Your task to perform on an android device: toggle pop-ups in chrome Image 0: 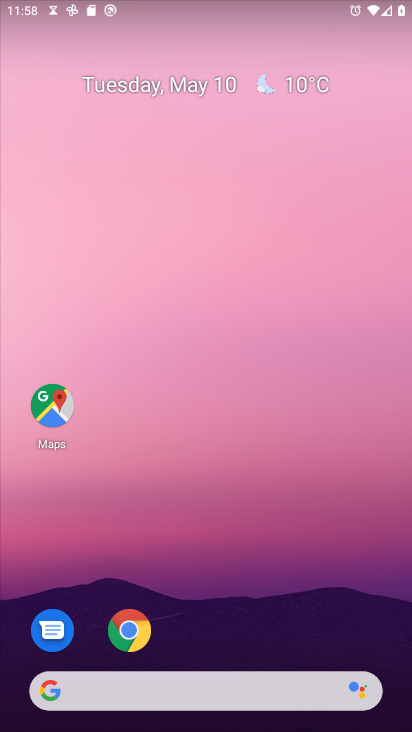
Step 0: click (131, 627)
Your task to perform on an android device: toggle pop-ups in chrome Image 1: 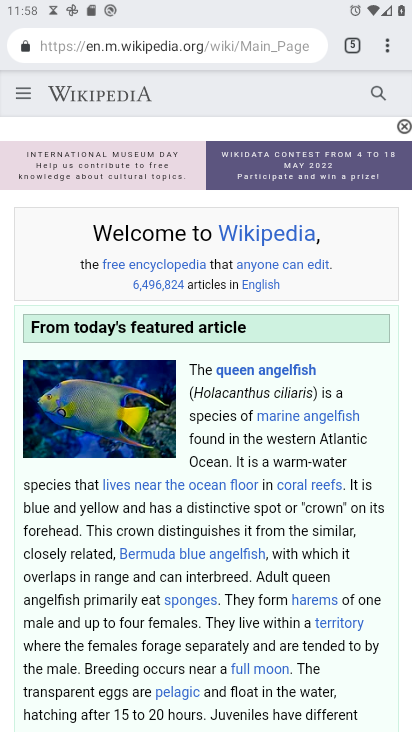
Step 1: click (389, 48)
Your task to perform on an android device: toggle pop-ups in chrome Image 2: 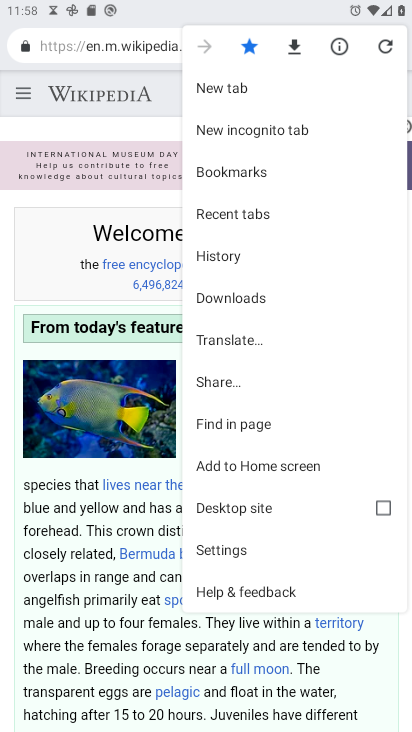
Step 2: click (270, 542)
Your task to perform on an android device: toggle pop-ups in chrome Image 3: 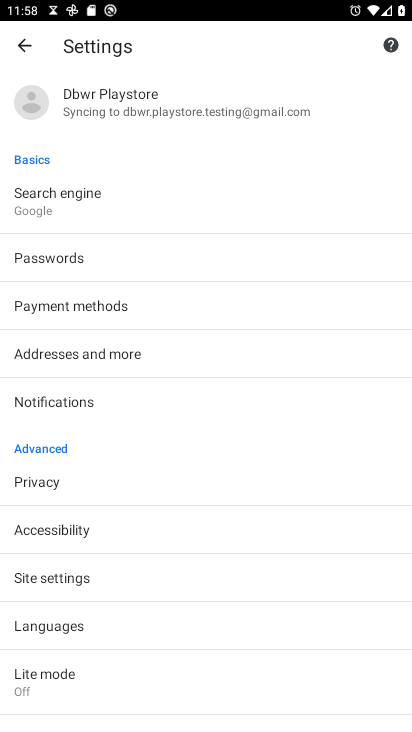
Step 3: click (66, 582)
Your task to perform on an android device: toggle pop-ups in chrome Image 4: 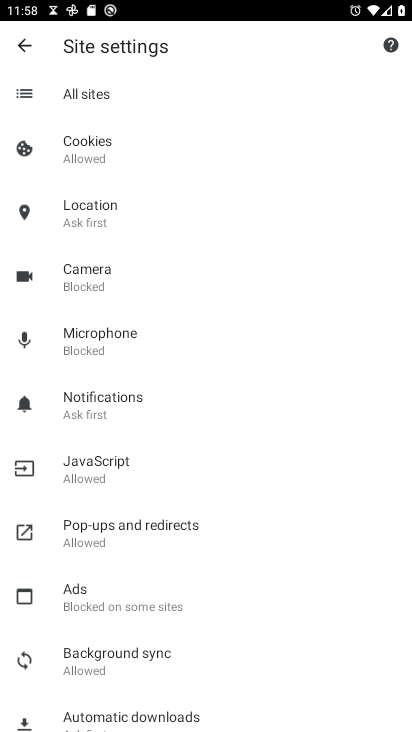
Step 4: click (126, 526)
Your task to perform on an android device: toggle pop-ups in chrome Image 5: 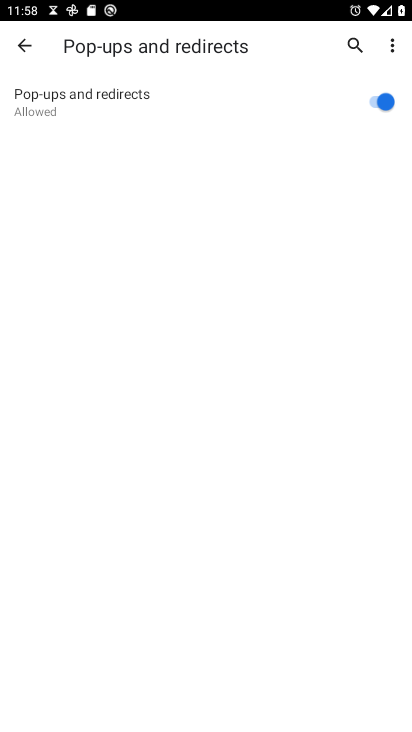
Step 5: click (371, 88)
Your task to perform on an android device: toggle pop-ups in chrome Image 6: 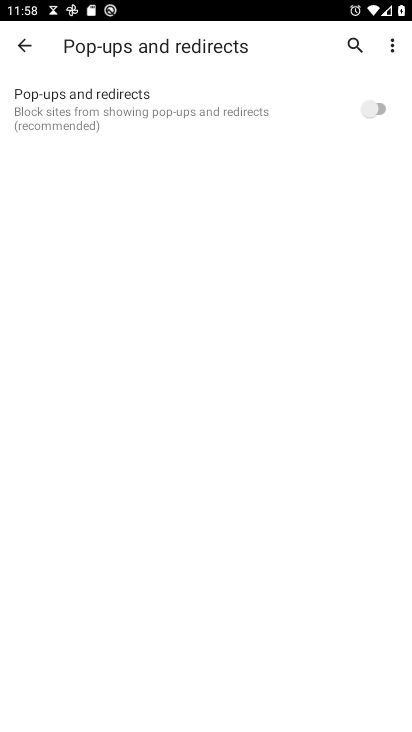
Step 6: task complete